Your task to perform on an android device: What is the speed of sound? Image 0: 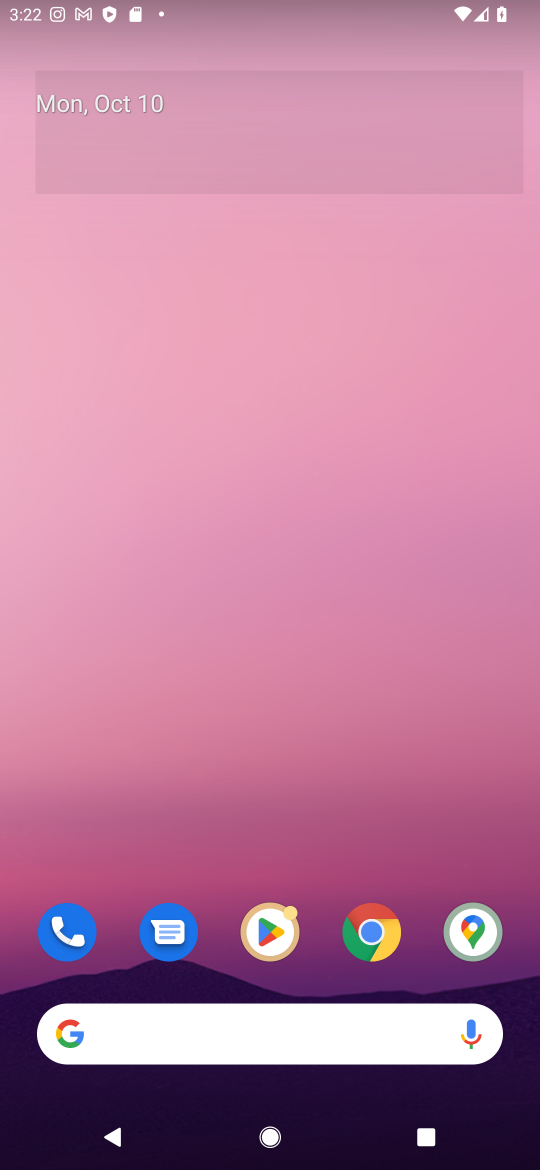
Step 0: press home button
Your task to perform on an android device: What is the speed of sound? Image 1: 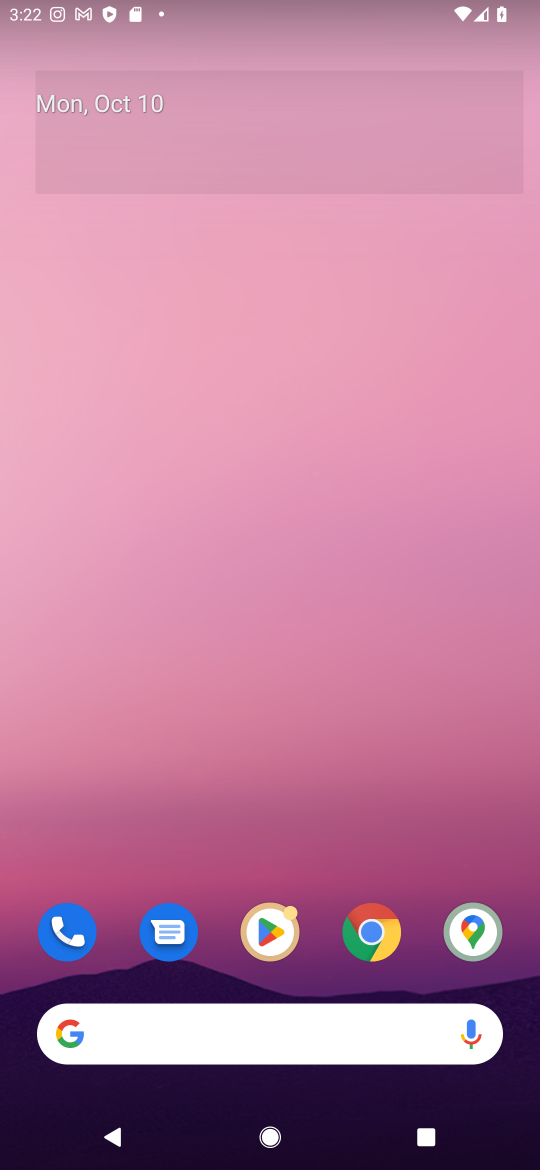
Step 1: click (275, 1024)
Your task to perform on an android device: What is the speed of sound? Image 2: 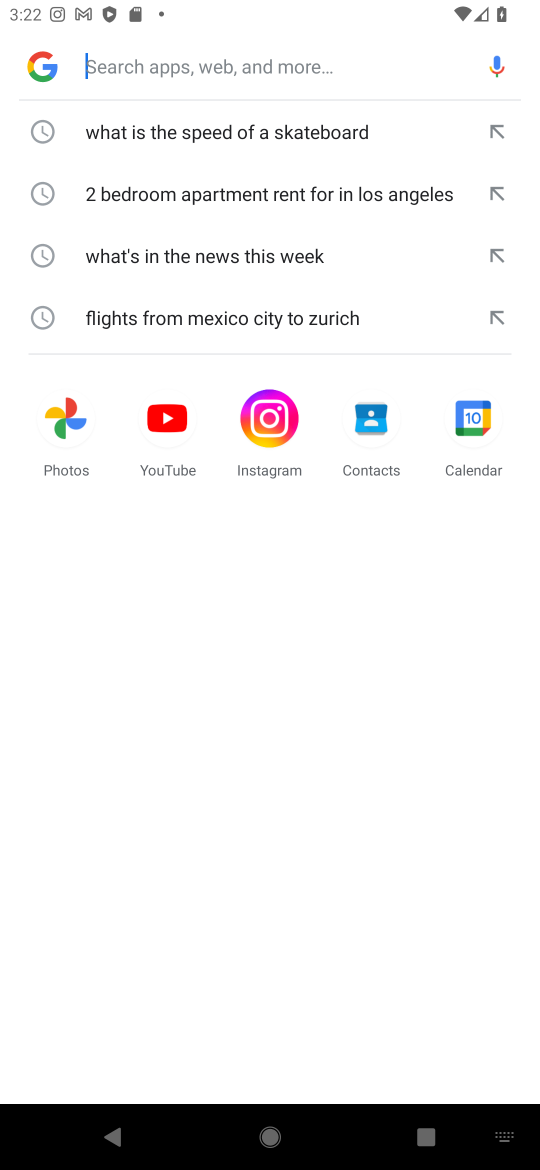
Step 2: type "What is the speed of sound"
Your task to perform on an android device: What is the speed of sound? Image 3: 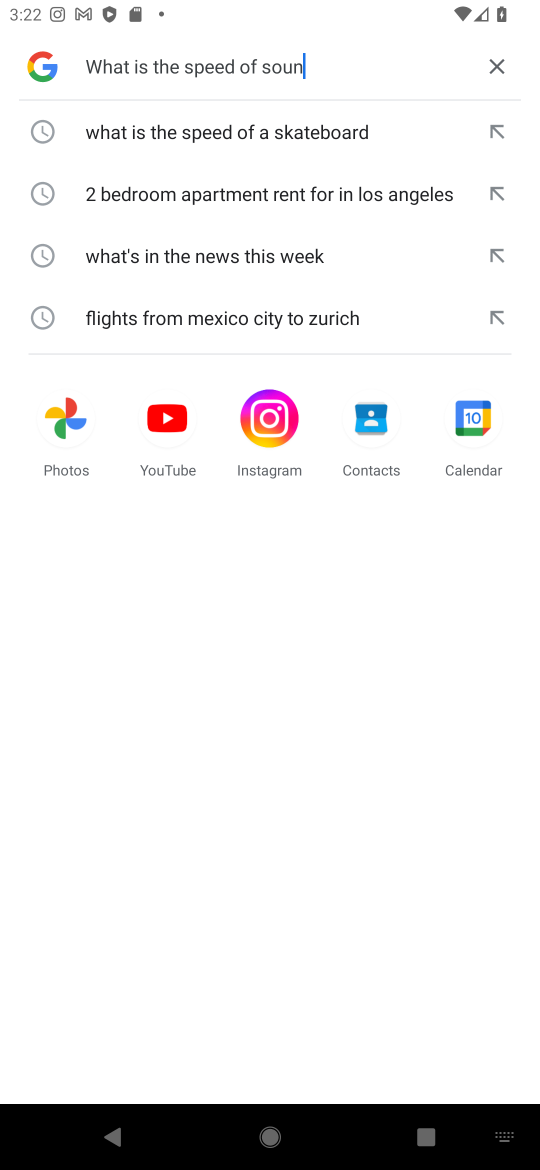
Step 3: press enter
Your task to perform on an android device: What is the speed of sound? Image 4: 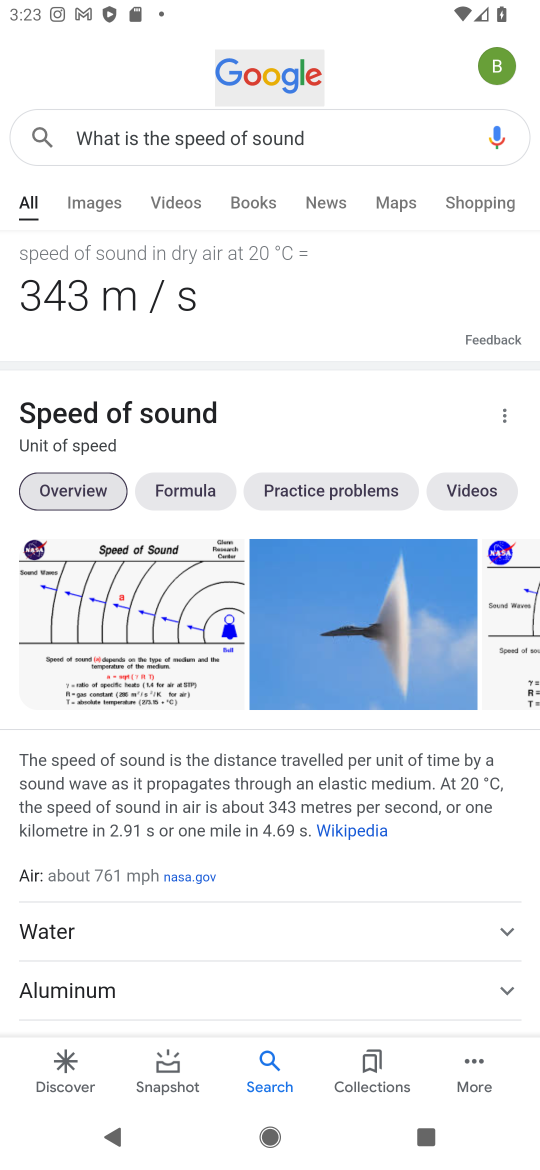
Step 4: task complete